Your task to perform on an android device: Search for Italian restaurants on Maps Image 0: 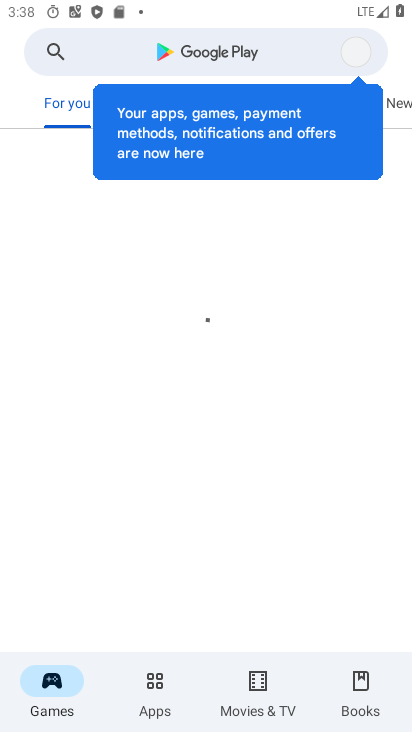
Step 0: press home button
Your task to perform on an android device: Search for Italian restaurants on Maps Image 1: 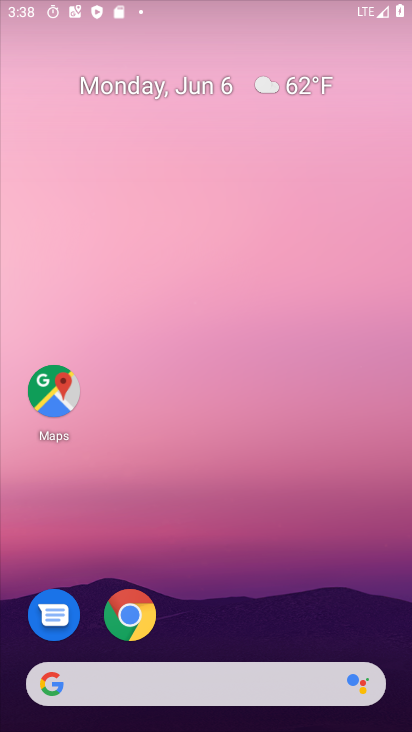
Step 1: drag from (284, 654) to (317, 7)
Your task to perform on an android device: Search for Italian restaurants on Maps Image 2: 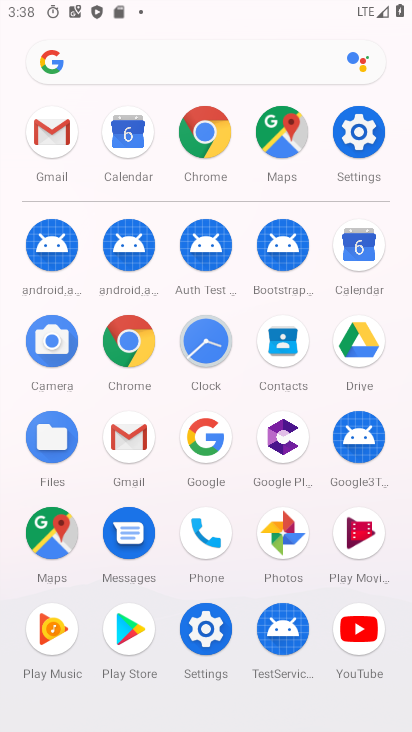
Step 2: click (68, 526)
Your task to perform on an android device: Search for Italian restaurants on Maps Image 3: 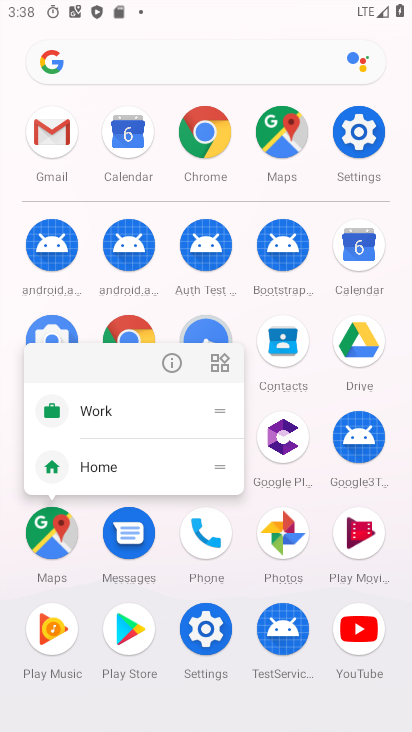
Step 3: click (68, 526)
Your task to perform on an android device: Search for Italian restaurants on Maps Image 4: 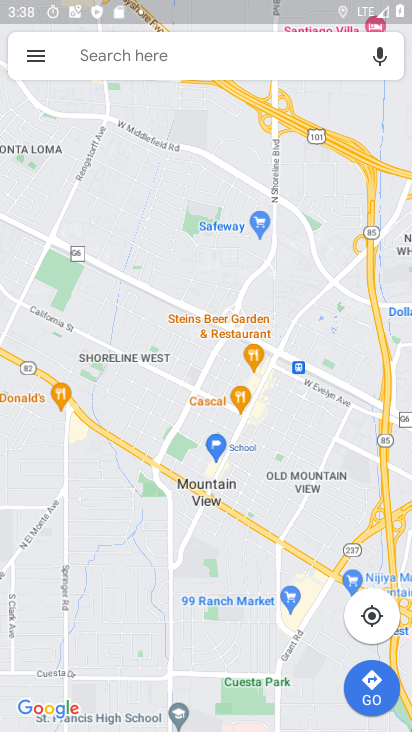
Step 4: click (222, 52)
Your task to perform on an android device: Search for Italian restaurants on Maps Image 5: 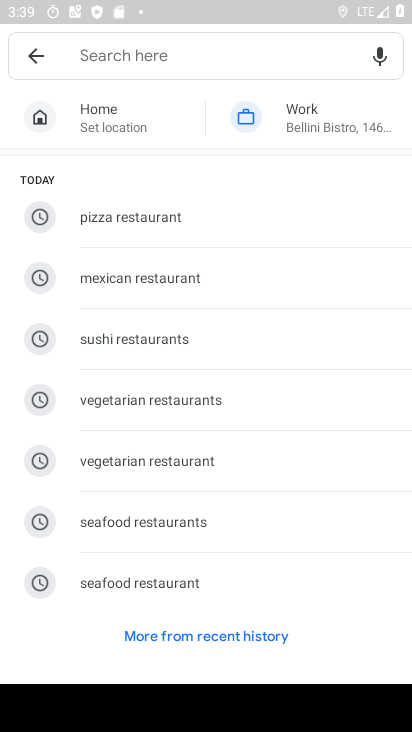
Step 5: type "italian restaurant"
Your task to perform on an android device: Search for Italian restaurants on Maps Image 6: 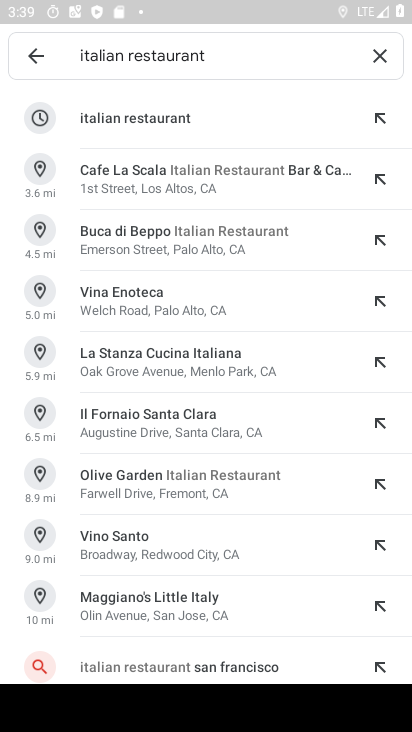
Step 6: click (235, 129)
Your task to perform on an android device: Search for Italian restaurants on Maps Image 7: 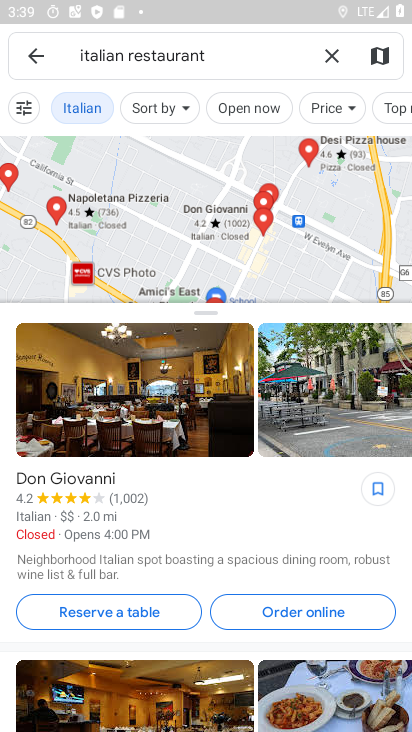
Step 7: task complete